Your task to perform on an android device: turn on airplane mode Image 0: 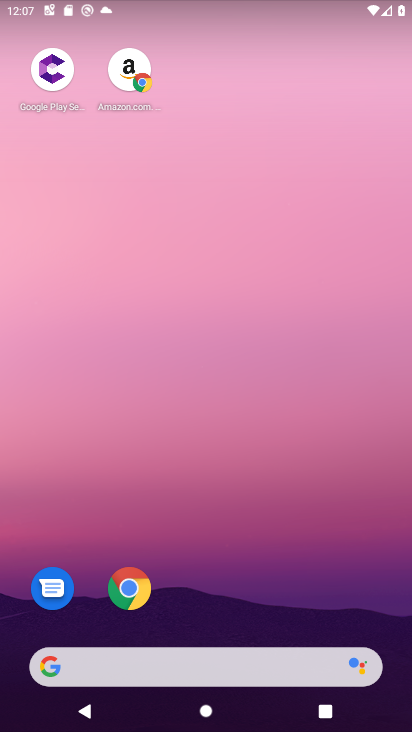
Step 0: drag from (228, 656) to (76, 0)
Your task to perform on an android device: turn on airplane mode Image 1: 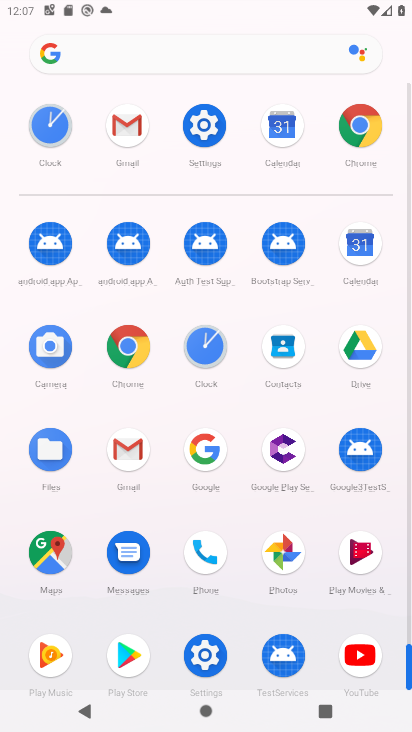
Step 1: click (198, 127)
Your task to perform on an android device: turn on airplane mode Image 2: 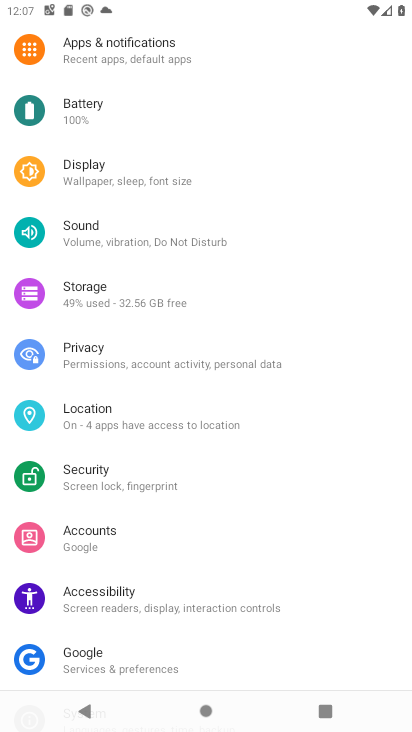
Step 2: drag from (291, 192) to (349, 631)
Your task to perform on an android device: turn on airplane mode Image 3: 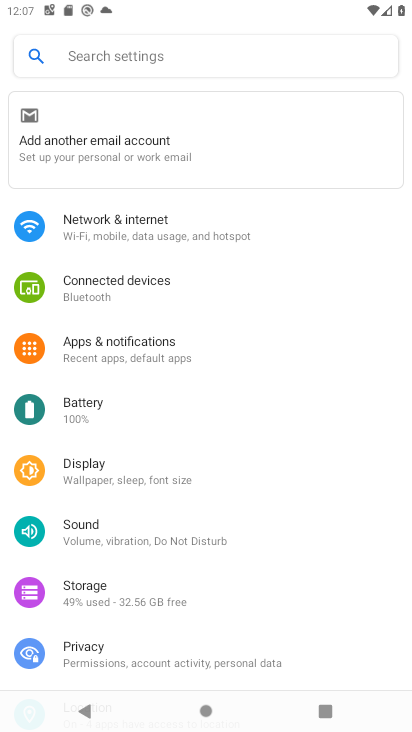
Step 3: click (193, 230)
Your task to perform on an android device: turn on airplane mode Image 4: 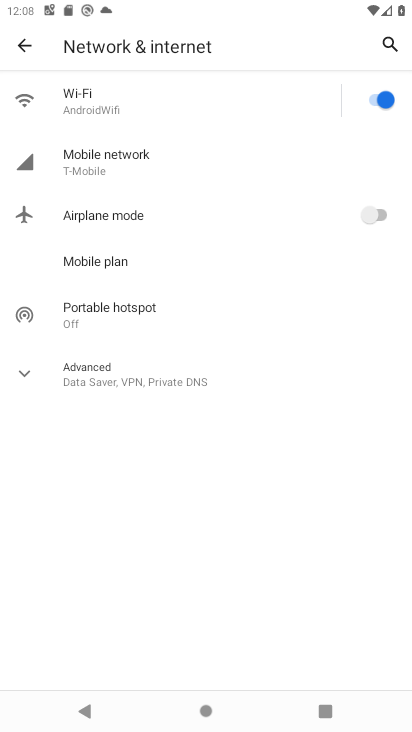
Step 4: click (373, 217)
Your task to perform on an android device: turn on airplane mode Image 5: 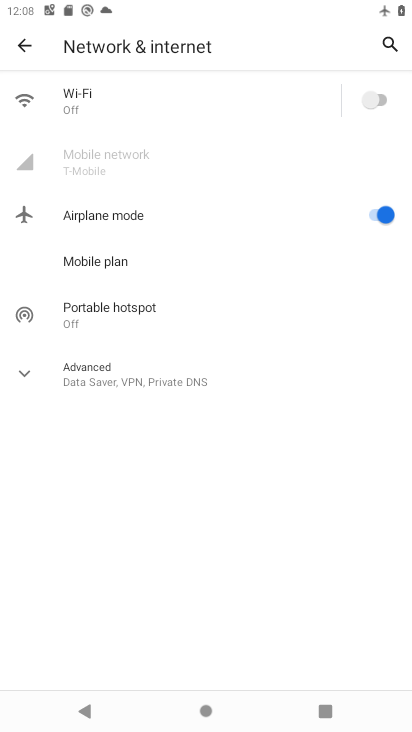
Step 5: task complete